Your task to perform on an android device: see sites visited before in the chrome app Image 0: 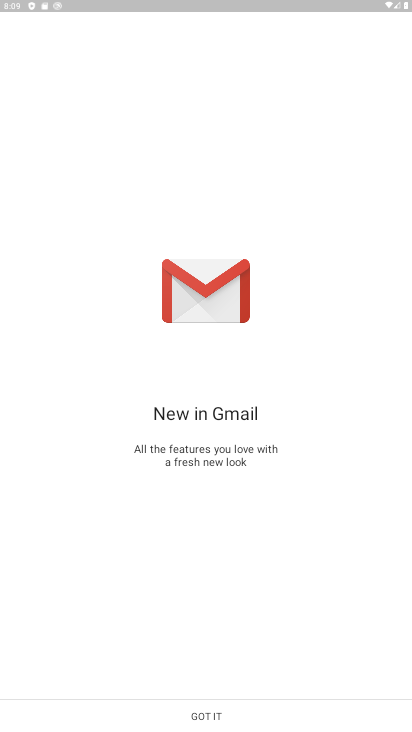
Step 0: press home button
Your task to perform on an android device: see sites visited before in the chrome app Image 1: 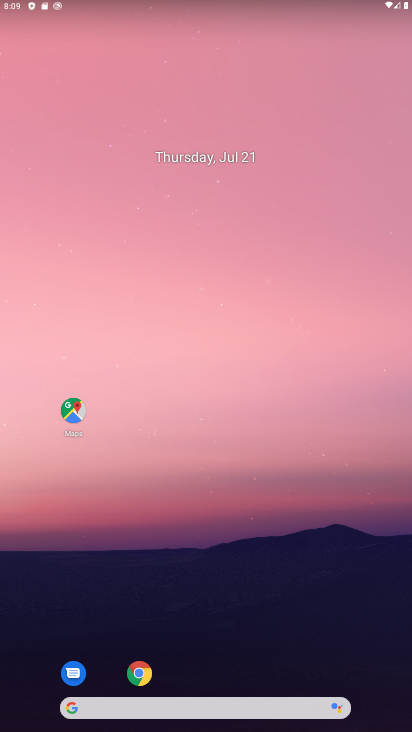
Step 1: click (137, 687)
Your task to perform on an android device: see sites visited before in the chrome app Image 2: 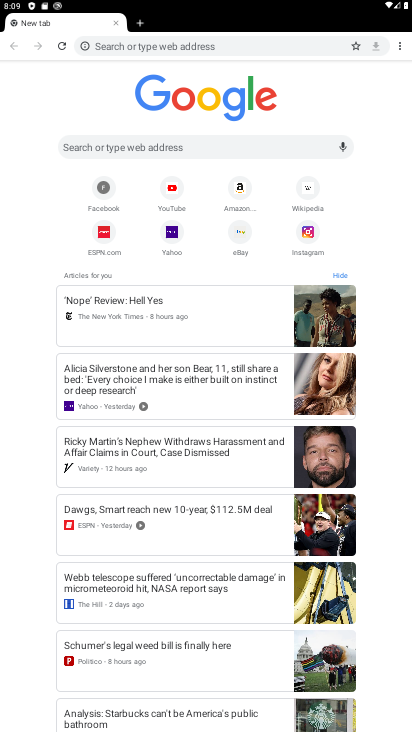
Step 2: click (392, 42)
Your task to perform on an android device: see sites visited before in the chrome app Image 3: 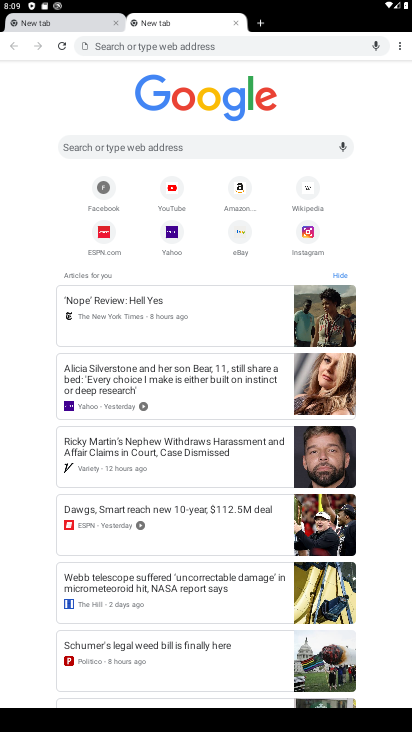
Step 3: click (403, 43)
Your task to perform on an android device: see sites visited before in the chrome app Image 4: 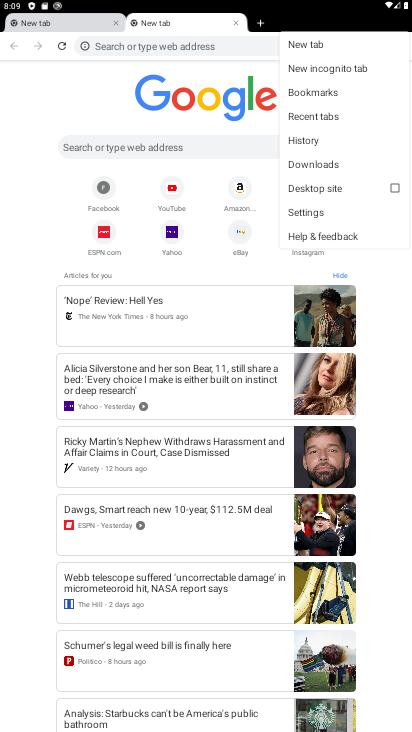
Step 4: click (347, 122)
Your task to perform on an android device: see sites visited before in the chrome app Image 5: 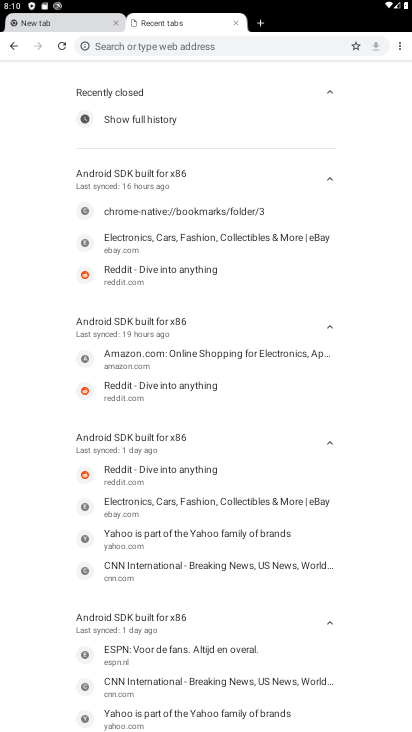
Step 5: task complete